Your task to perform on an android device: Open Maps and search for coffee Image 0: 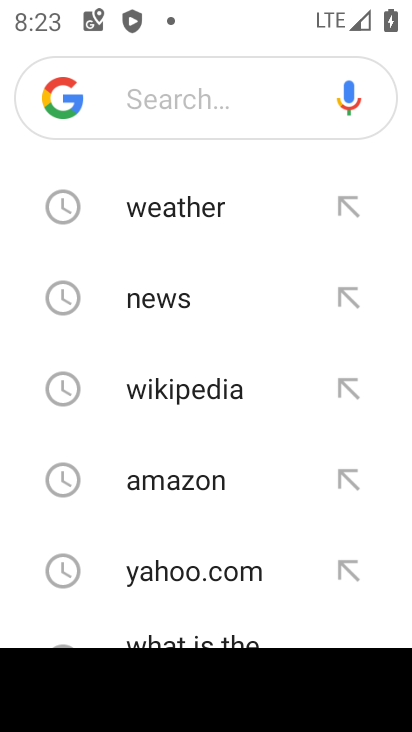
Step 0: press home button
Your task to perform on an android device: Open Maps and search for coffee Image 1: 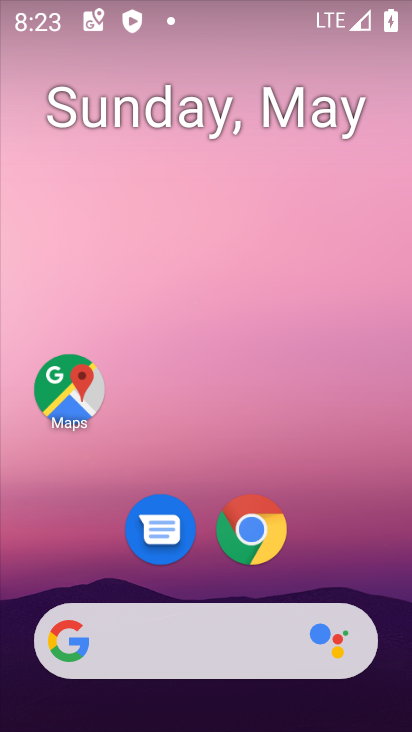
Step 1: drag from (70, 375) to (144, 375)
Your task to perform on an android device: Open Maps and search for coffee Image 2: 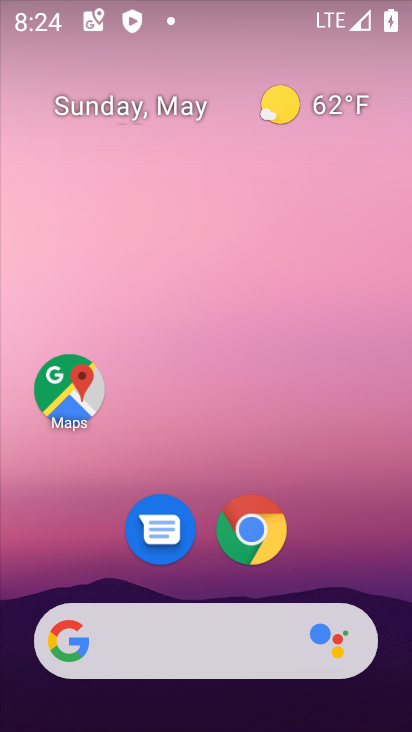
Step 2: click (85, 376)
Your task to perform on an android device: Open Maps and search for coffee Image 3: 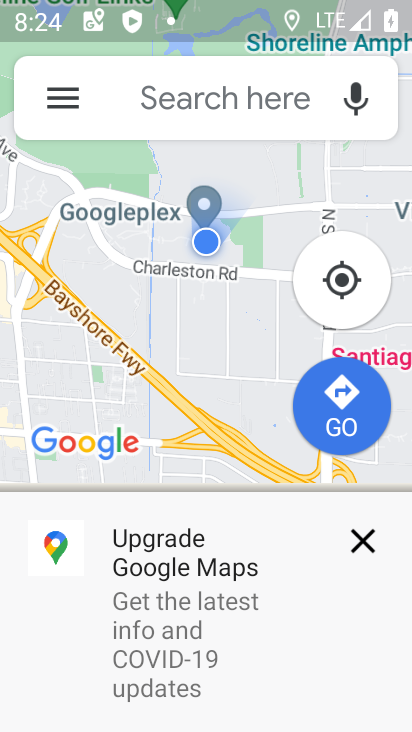
Step 3: click (170, 97)
Your task to perform on an android device: Open Maps and search for coffee Image 4: 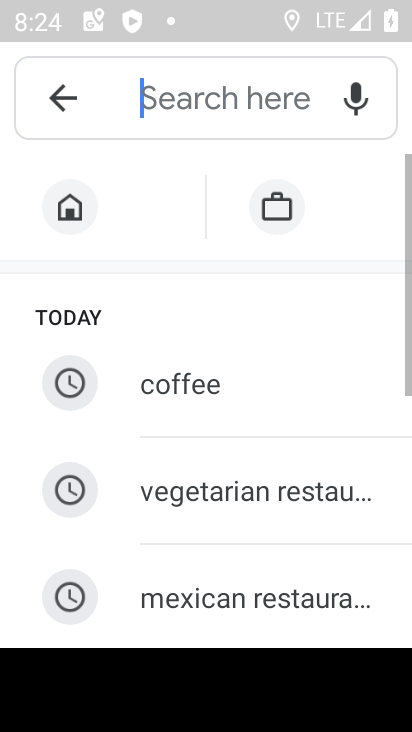
Step 4: click (192, 388)
Your task to perform on an android device: Open Maps and search for coffee Image 5: 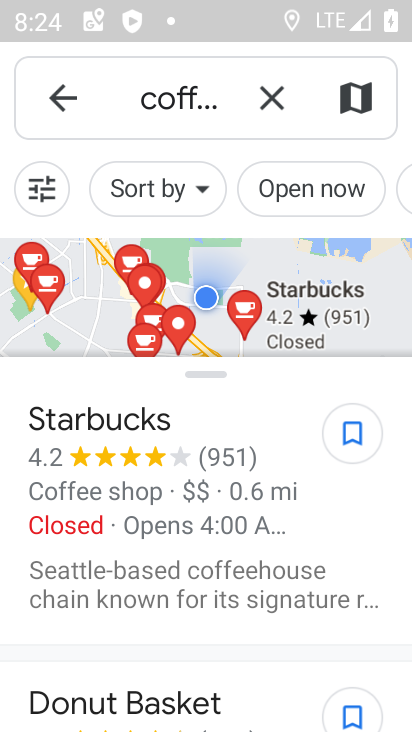
Step 5: task complete